Your task to perform on an android device: Set the phone to "Do not disturb". Image 0: 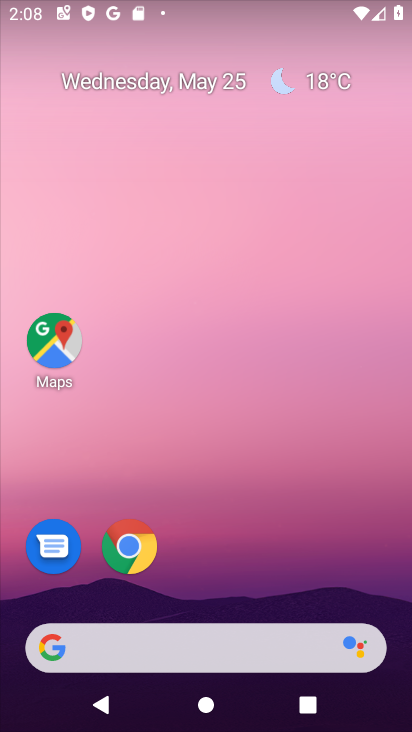
Step 0: drag from (226, 595) to (230, 141)
Your task to perform on an android device: Set the phone to "Do not disturb". Image 1: 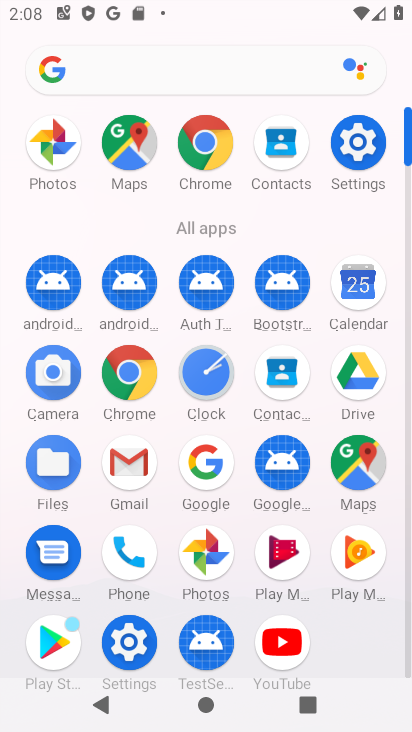
Step 1: click (366, 167)
Your task to perform on an android device: Set the phone to "Do not disturb". Image 2: 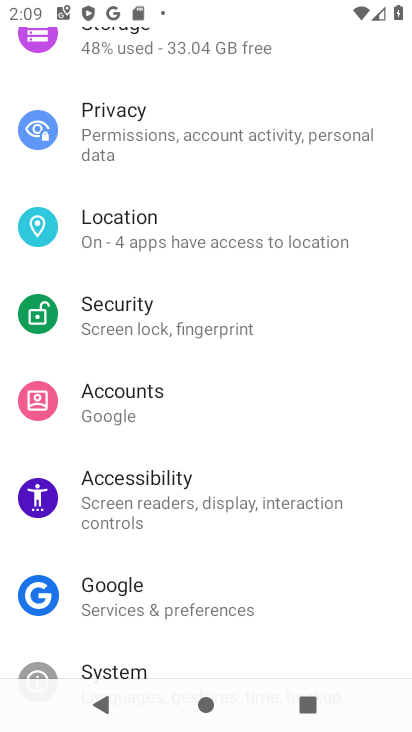
Step 2: drag from (149, 212) to (157, 518)
Your task to perform on an android device: Set the phone to "Do not disturb". Image 3: 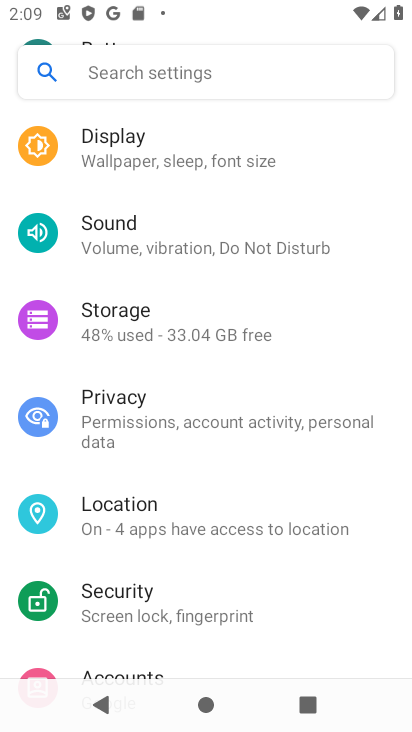
Step 3: click (157, 238)
Your task to perform on an android device: Set the phone to "Do not disturb". Image 4: 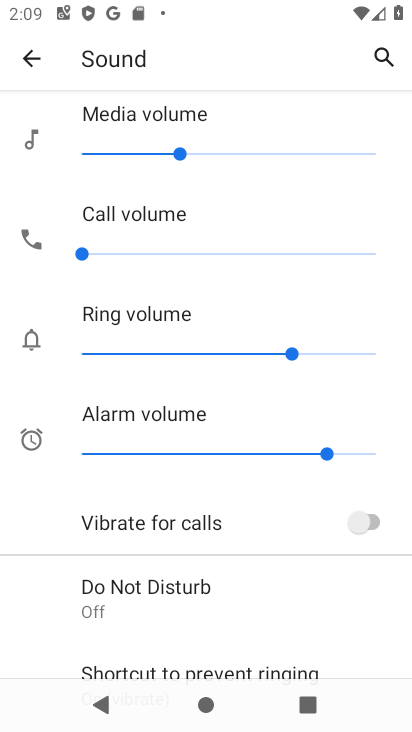
Step 4: drag from (158, 575) to (154, 440)
Your task to perform on an android device: Set the phone to "Do not disturb". Image 5: 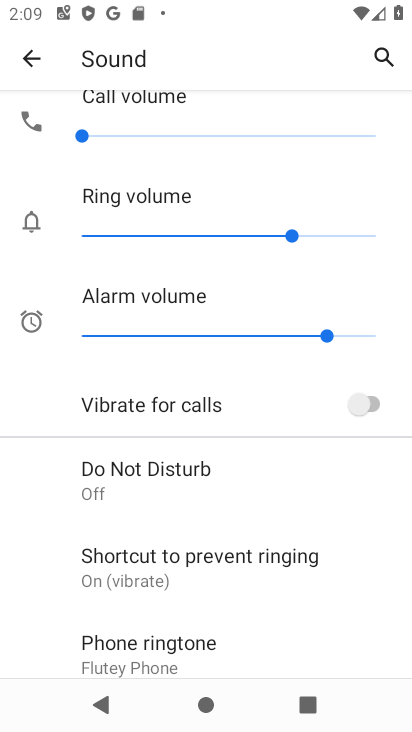
Step 5: click (124, 501)
Your task to perform on an android device: Set the phone to "Do not disturb". Image 6: 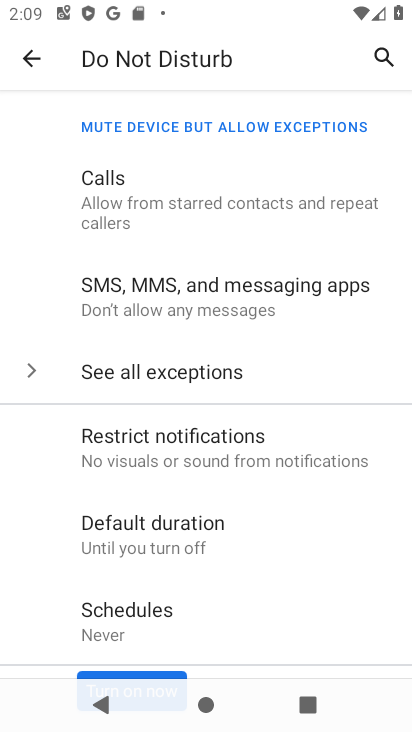
Step 6: drag from (180, 559) to (215, 357)
Your task to perform on an android device: Set the phone to "Do not disturb". Image 7: 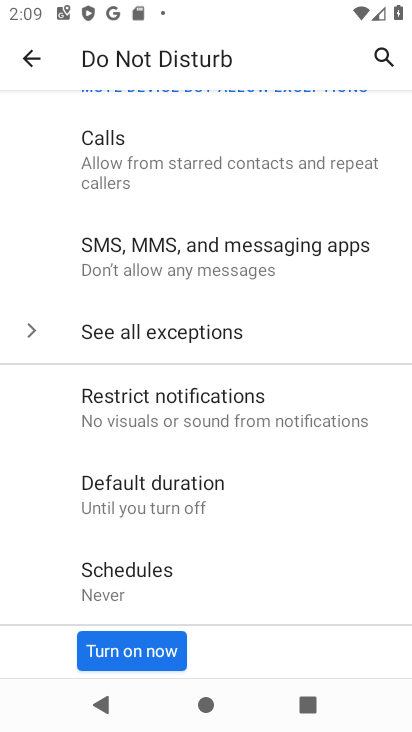
Step 7: click (160, 648)
Your task to perform on an android device: Set the phone to "Do not disturb". Image 8: 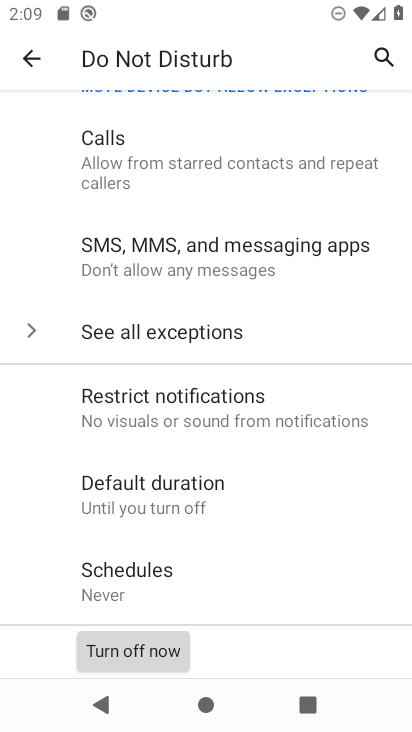
Step 8: task complete